Your task to perform on an android device: open a bookmark in the chrome app Image 0: 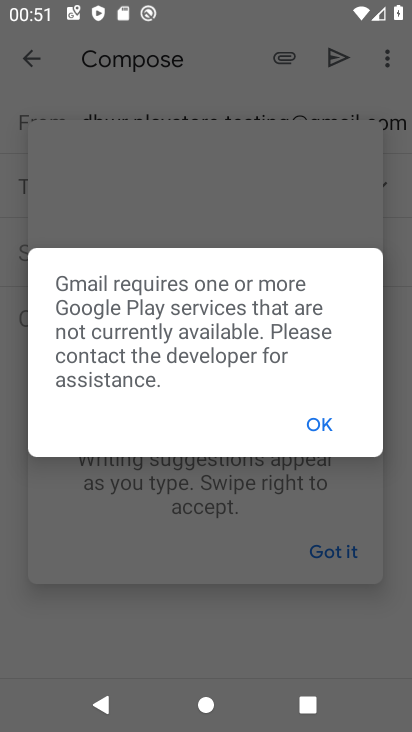
Step 0: press home button
Your task to perform on an android device: open a bookmark in the chrome app Image 1: 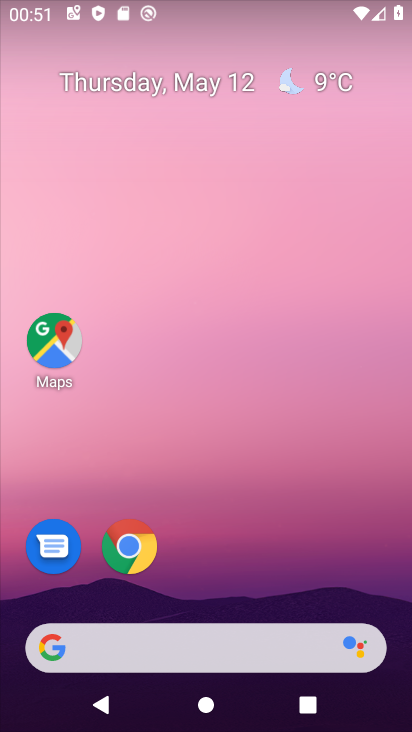
Step 1: click (124, 548)
Your task to perform on an android device: open a bookmark in the chrome app Image 2: 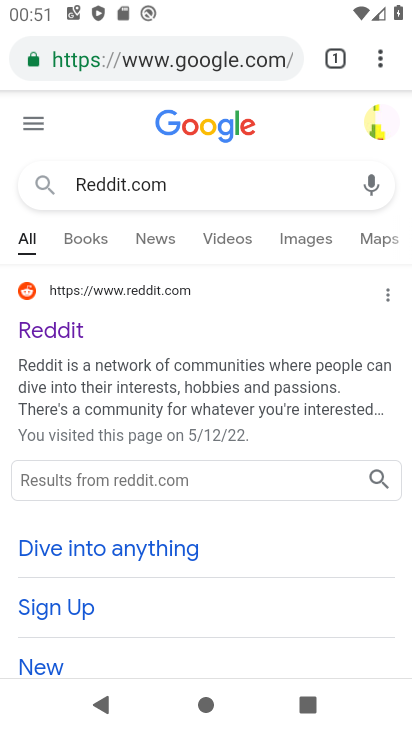
Step 2: click (381, 61)
Your task to perform on an android device: open a bookmark in the chrome app Image 3: 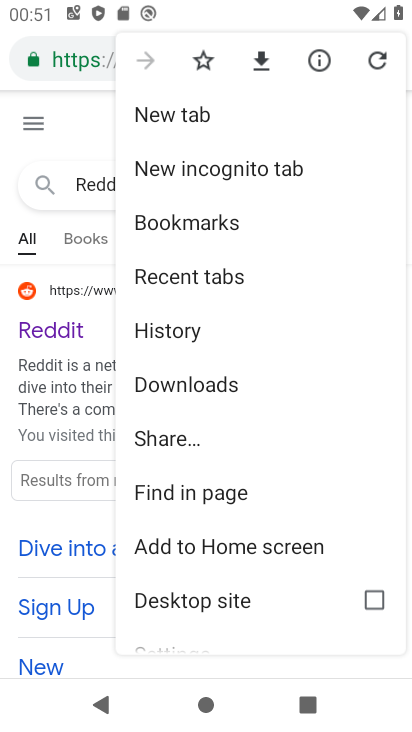
Step 3: click (195, 226)
Your task to perform on an android device: open a bookmark in the chrome app Image 4: 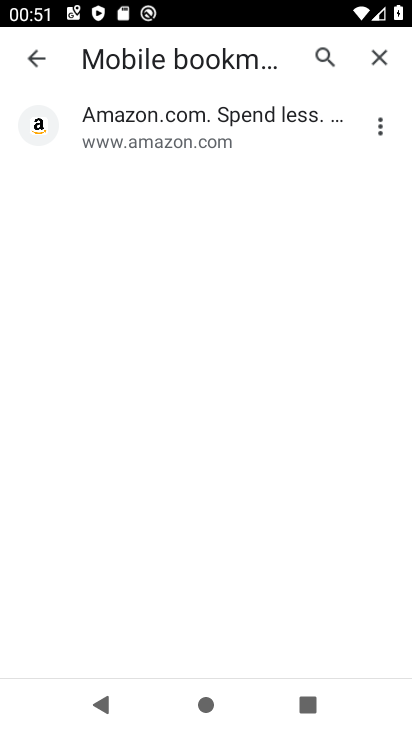
Step 4: task complete